Your task to perform on an android device: Turn off the flashlight Image 0: 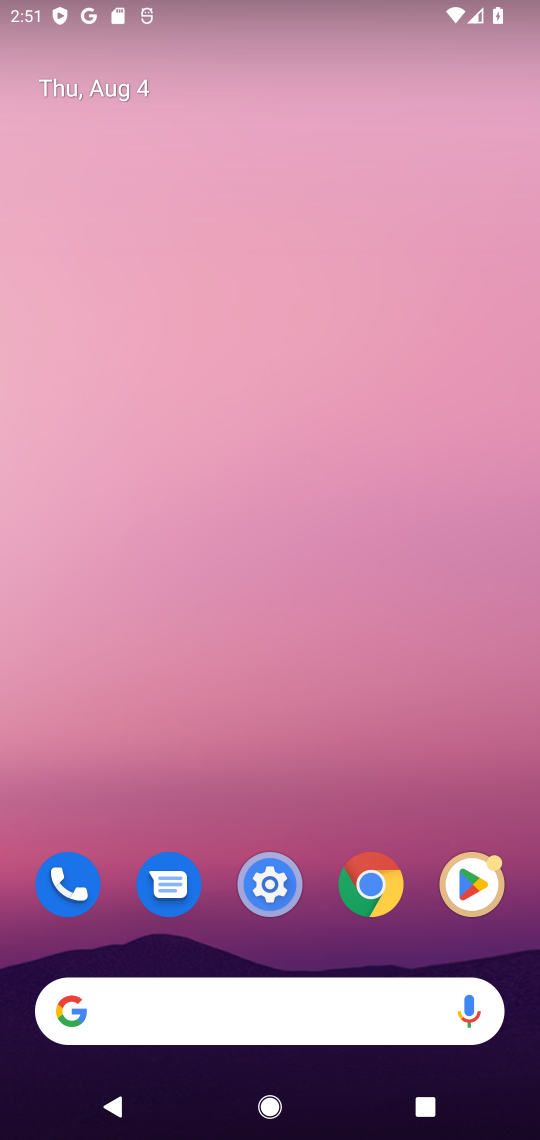
Step 0: drag from (215, 950) to (306, 458)
Your task to perform on an android device: Turn off the flashlight Image 1: 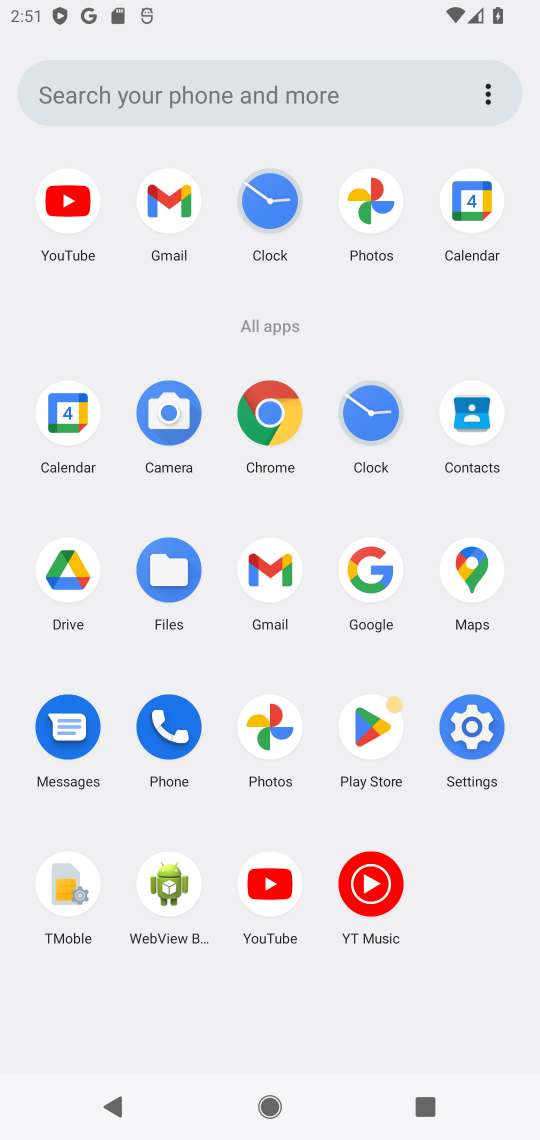
Step 1: click (478, 725)
Your task to perform on an android device: Turn off the flashlight Image 2: 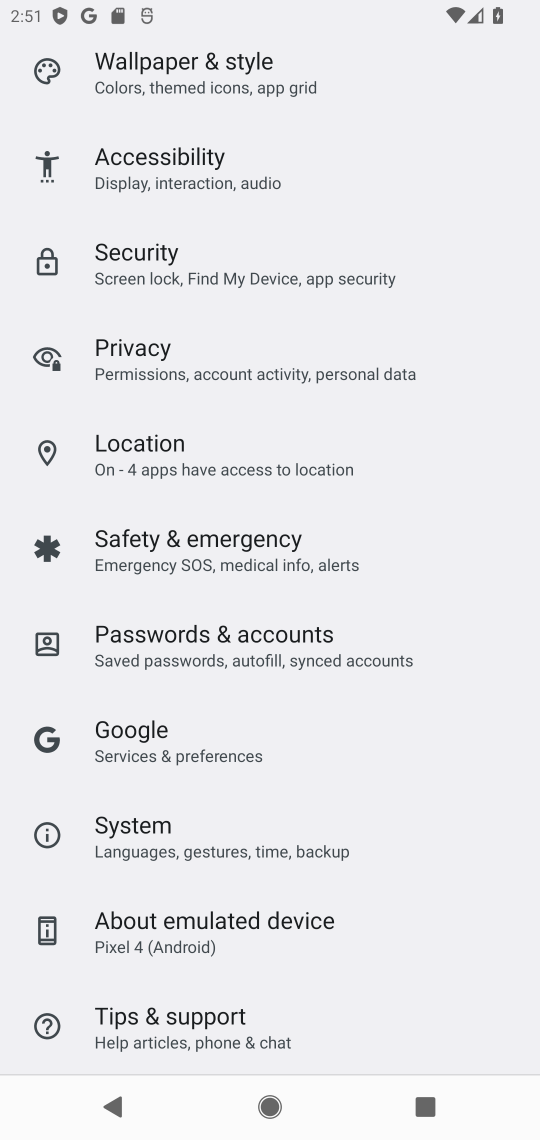
Step 2: drag from (358, 328) to (170, 1132)
Your task to perform on an android device: Turn off the flashlight Image 3: 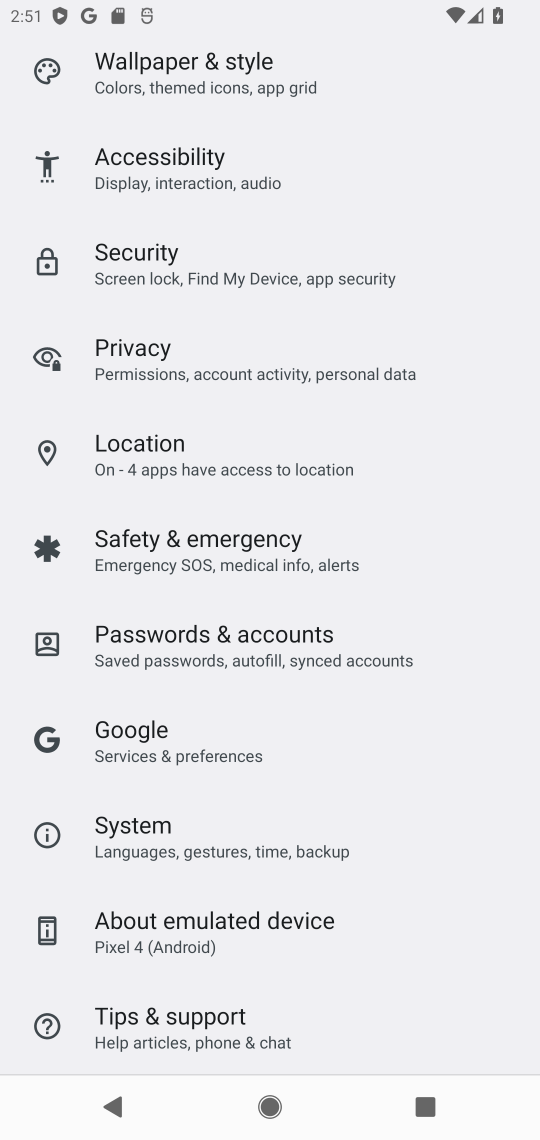
Step 3: drag from (178, 201) to (185, 1071)
Your task to perform on an android device: Turn off the flashlight Image 4: 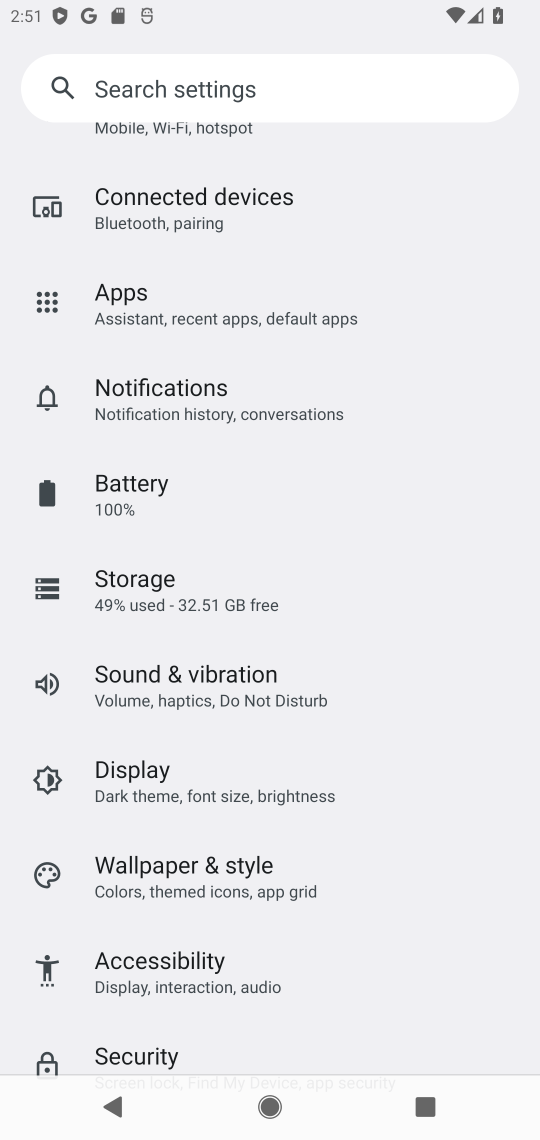
Step 4: click (203, 87)
Your task to perform on an android device: Turn off the flashlight Image 5: 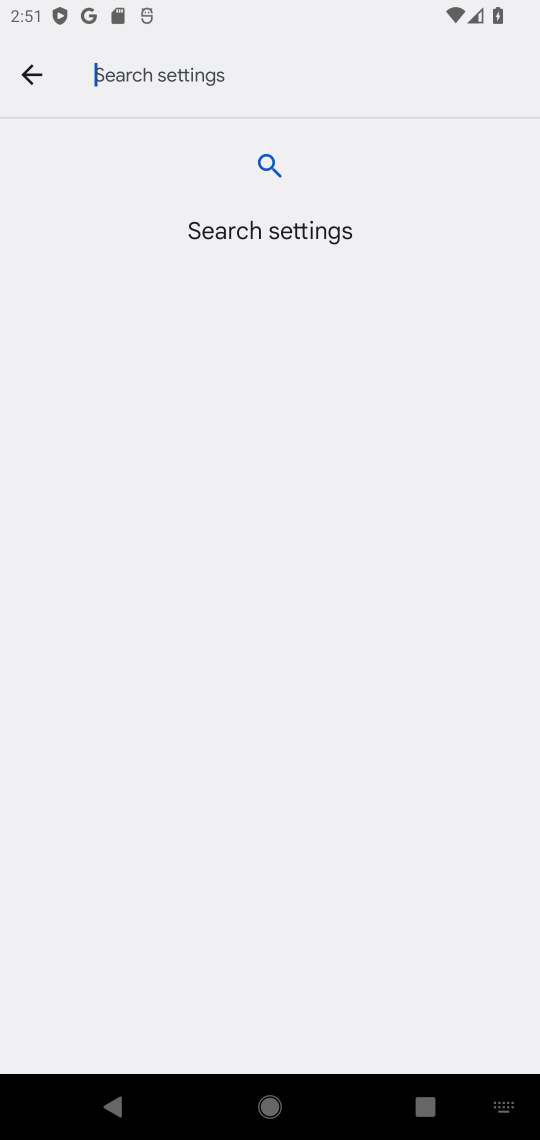
Step 5: type "flashlight"
Your task to perform on an android device: Turn off the flashlight Image 6: 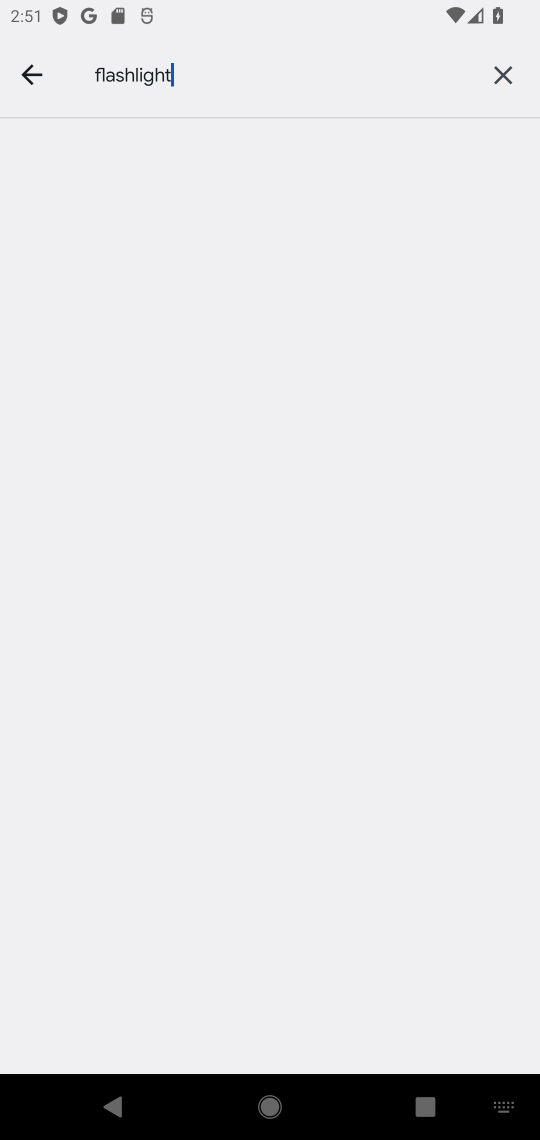
Step 6: type ""
Your task to perform on an android device: Turn off the flashlight Image 7: 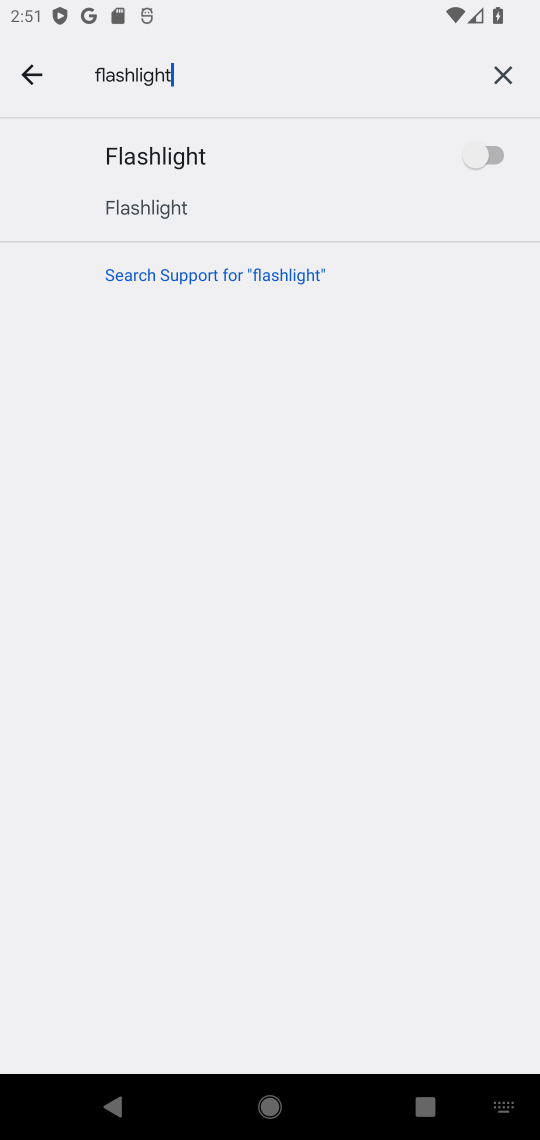
Step 7: task complete